Your task to perform on an android device: turn off sleep mode Image 0: 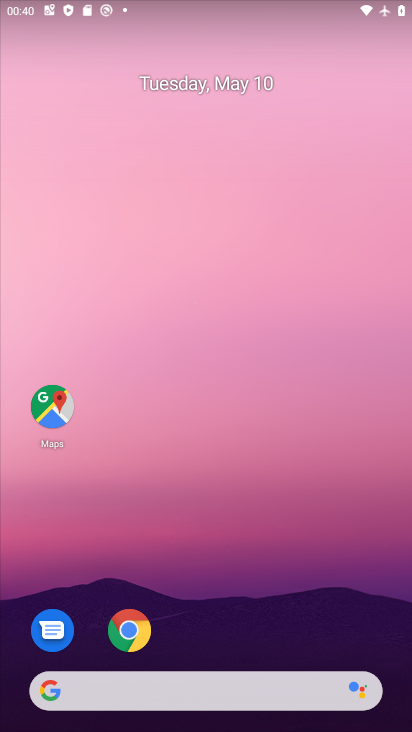
Step 0: drag from (212, 697) to (211, 236)
Your task to perform on an android device: turn off sleep mode Image 1: 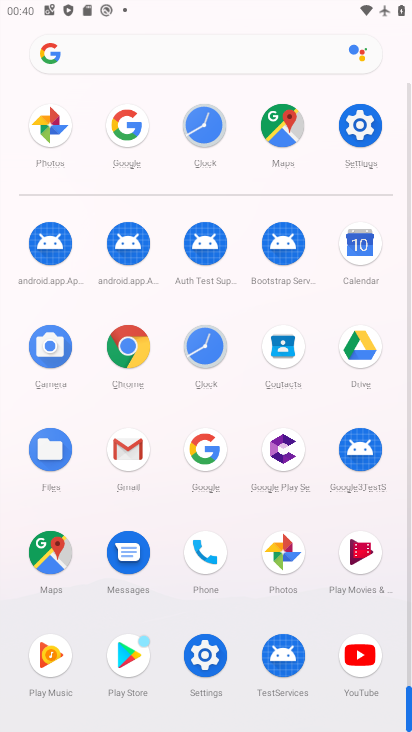
Step 1: click (361, 125)
Your task to perform on an android device: turn off sleep mode Image 2: 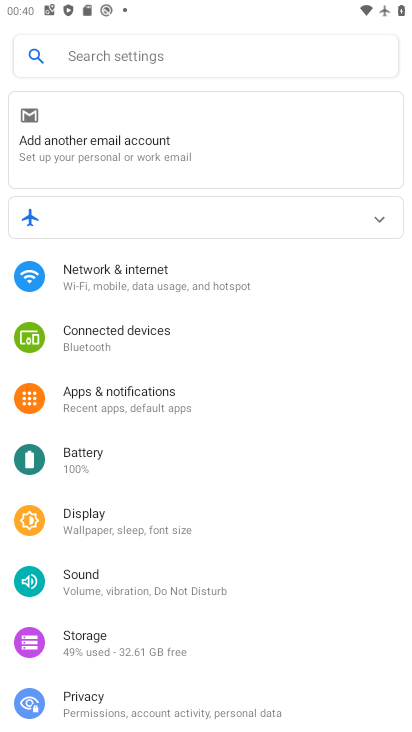
Step 2: drag from (136, 605) to (135, 403)
Your task to perform on an android device: turn off sleep mode Image 3: 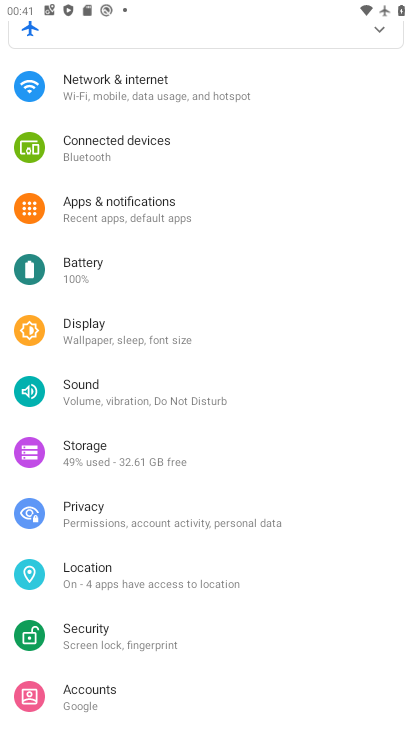
Step 3: drag from (165, 665) to (171, 297)
Your task to perform on an android device: turn off sleep mode Image 4: 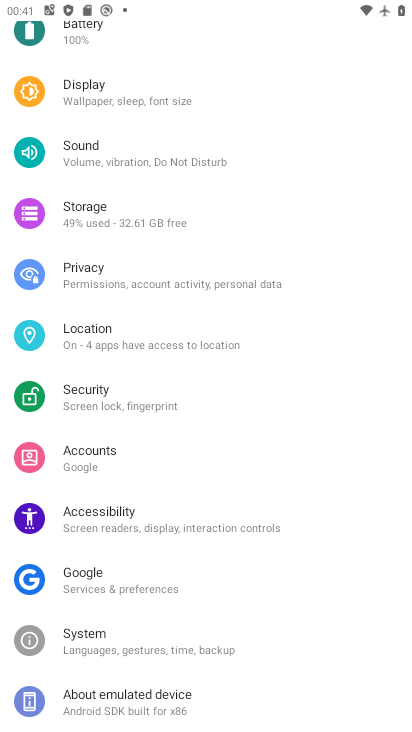
Step 4: drag from (142, 689) to (144, 371)
Your task to perform on an android device: turn off sleep mode Image 5: 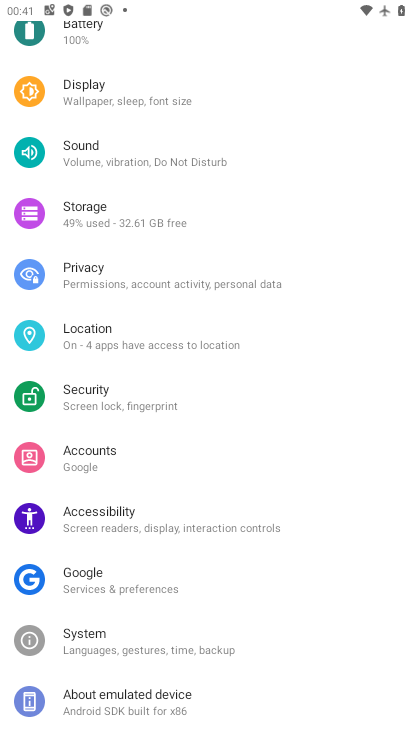
Step 5: drag from (176, 181) to (171, 449)
Your task to perform on an android device: turn off sleep mode Image 6: 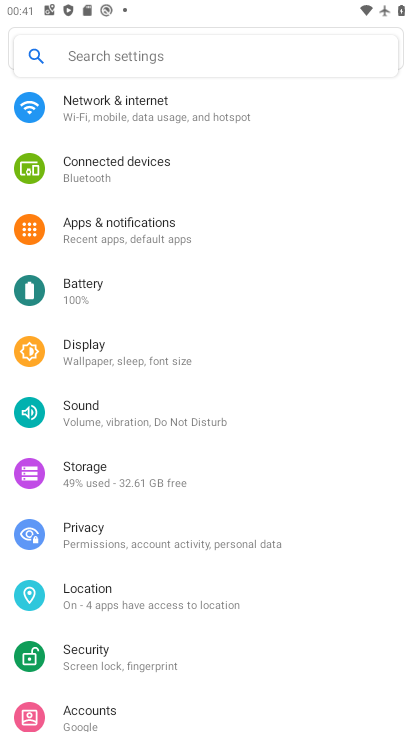
Step 6: click (139, 359)
Your task to perform on an android device: turn off sleep mode Image 7: 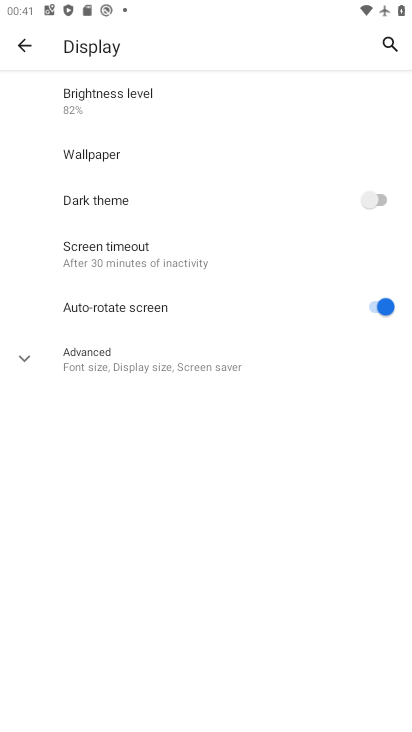
Step 7: task complete